Your task to perform on an android device: Is it going to rain today? Image 0: 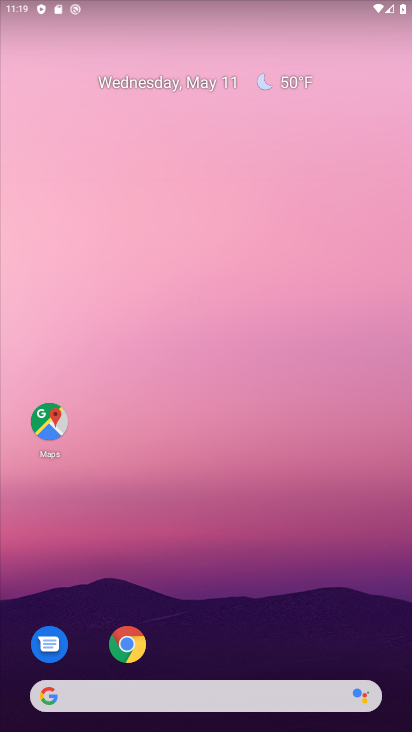
Step 0: drag from (294, 547) to (247, 41)
Your task to perform on an android device: Is it going to rain today? Image 1: 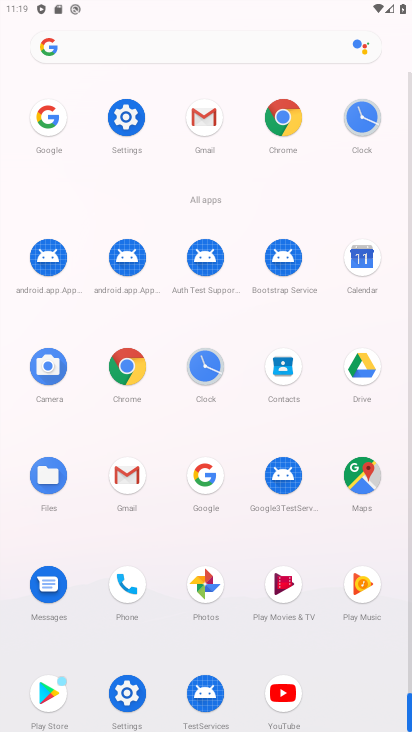
Step 1: press home button
Your task to perform on an android device: Is it going to rain today? Image 2: 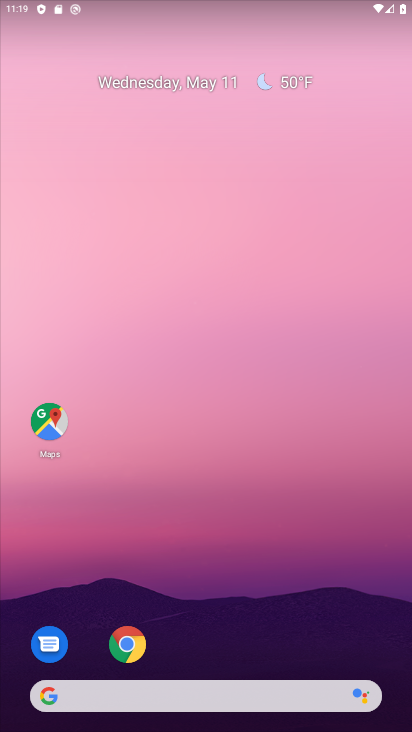
Step 2: click (286, 88)
Your task to perform on an android device: Is it going to rain today? Image 3: 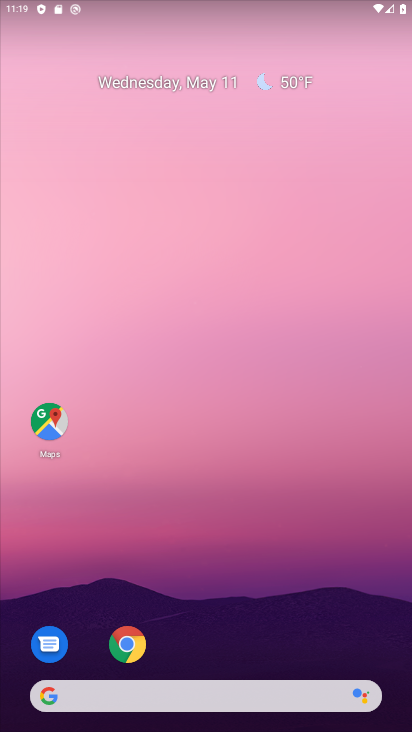
Step 3: click (290, 86)
Your task to perform on an android device: Is it going to rain today? Image 4: 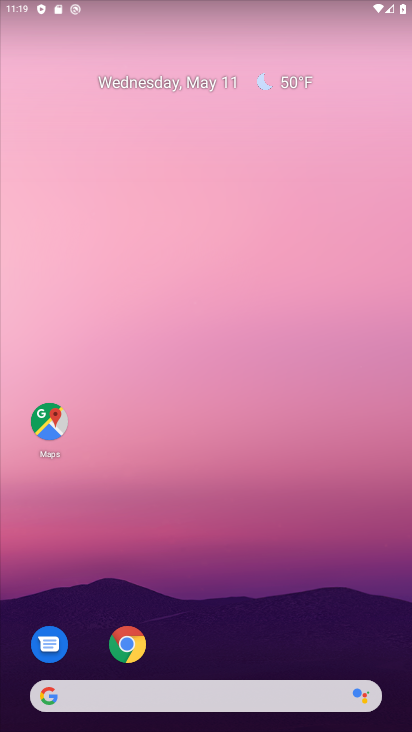
Step 4: task complete